Your task to perform on an android device: uninstall "Upside-Cash back on gas & food" Image 0: 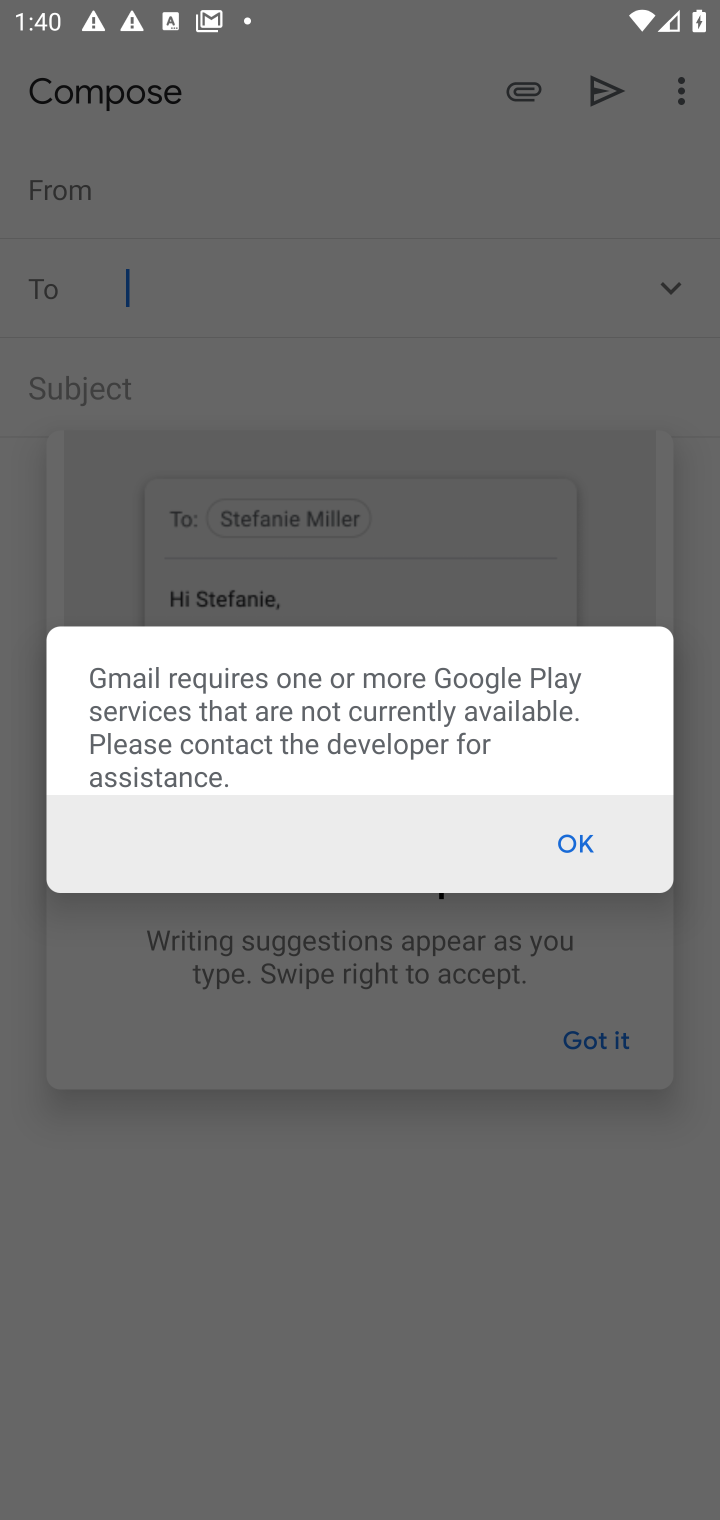
Step 0: press home button
Your task to perform on an android device: uninstall "Upside-Cash back on gas & food" Image 1: 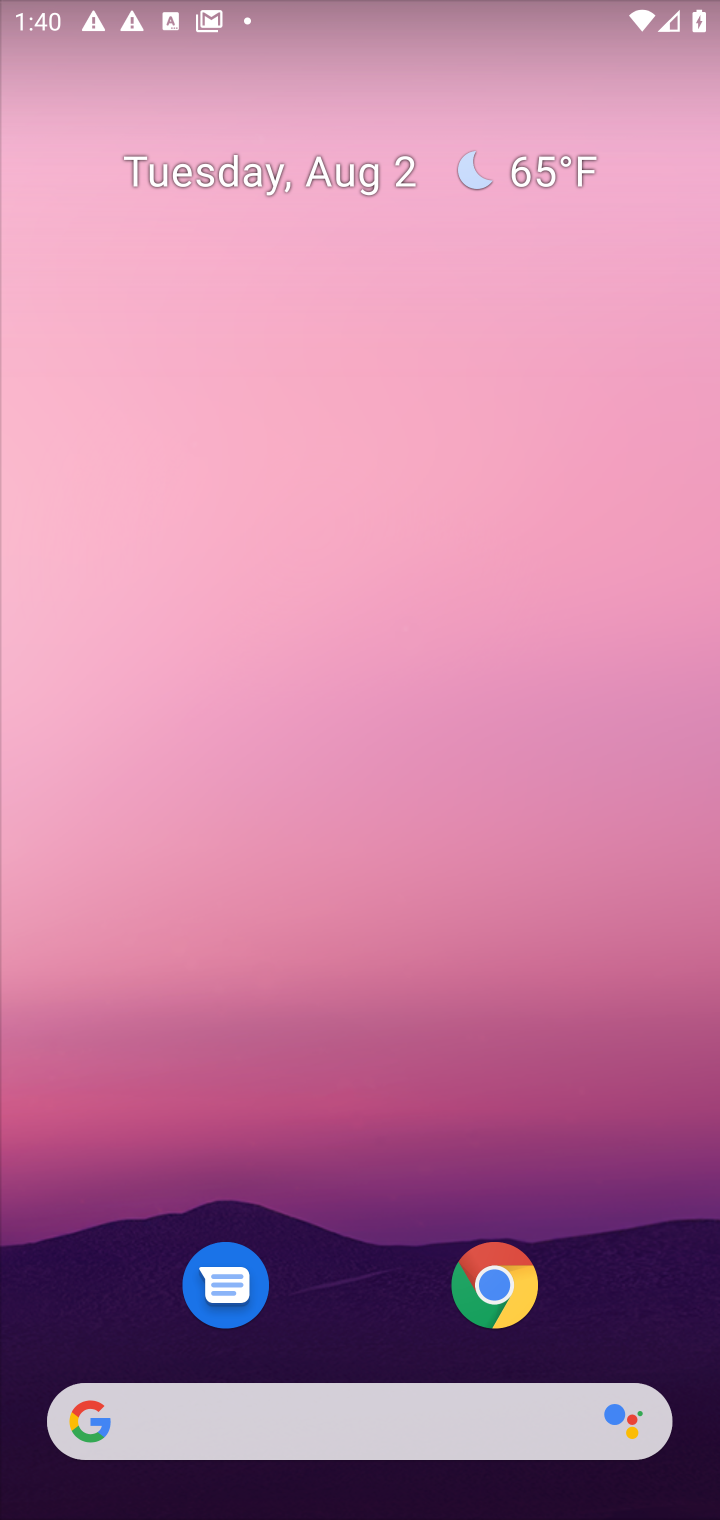
Step 1: drag from (382, 1160) to (377, 350)
Your task to perform on an android device: uninstall "Upside-Cash back on gas & food" Image 2: 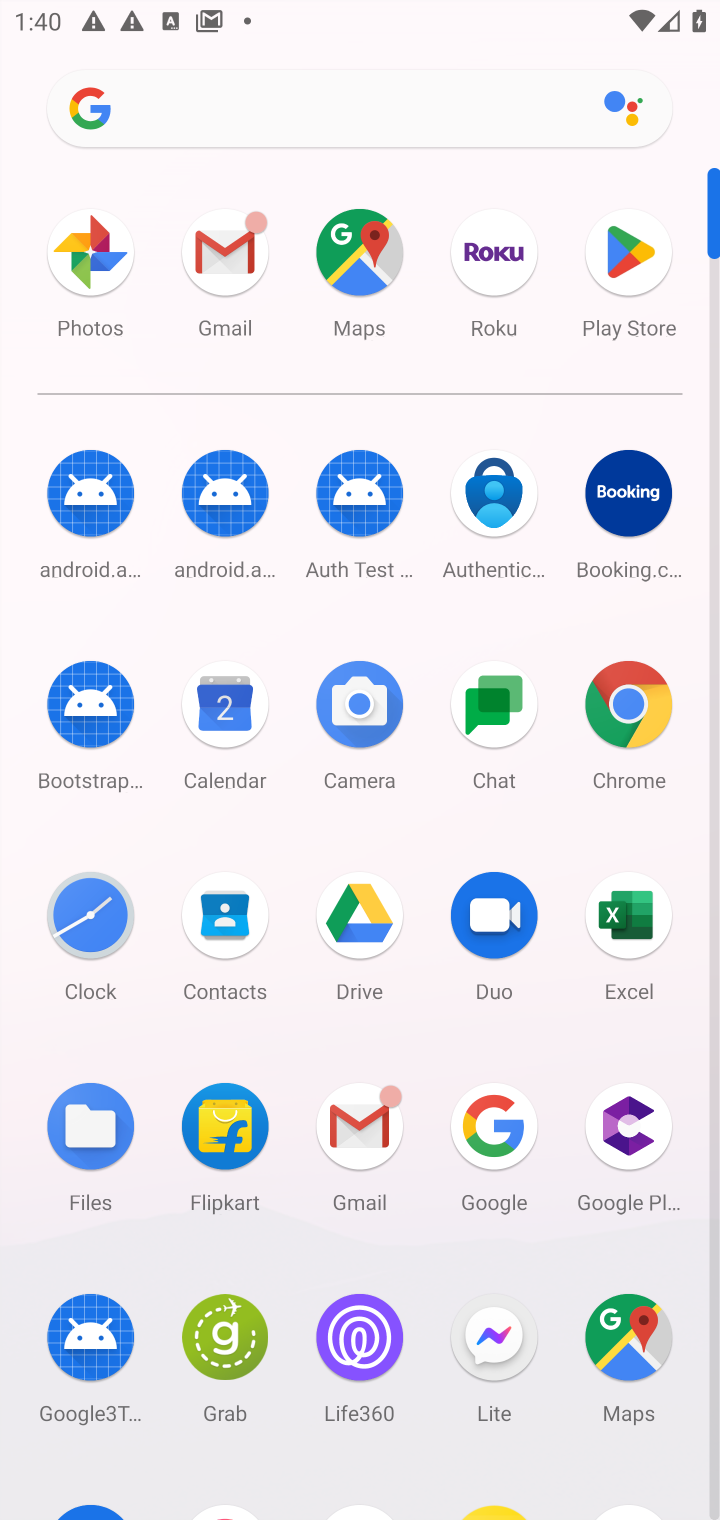
Step 2: drag from (593, 1095) to (642, 601)
Your task to perform on an android device: uninstall "Upside-Cash back on gas & food" Image 3: 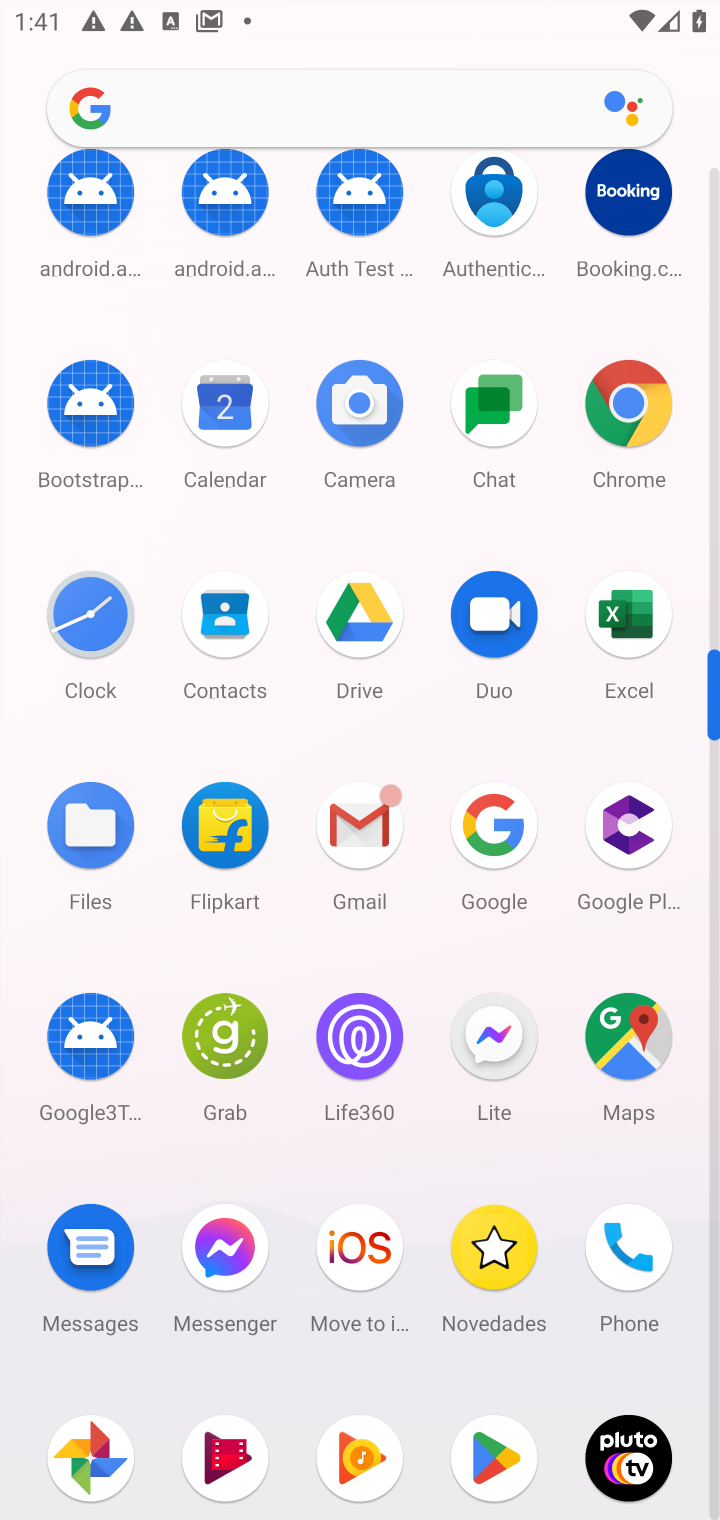
Step 3: click (503, 1438)
Your task to perform on an android device: uninstall "Upside-Cash back on gas & food" Image 4: 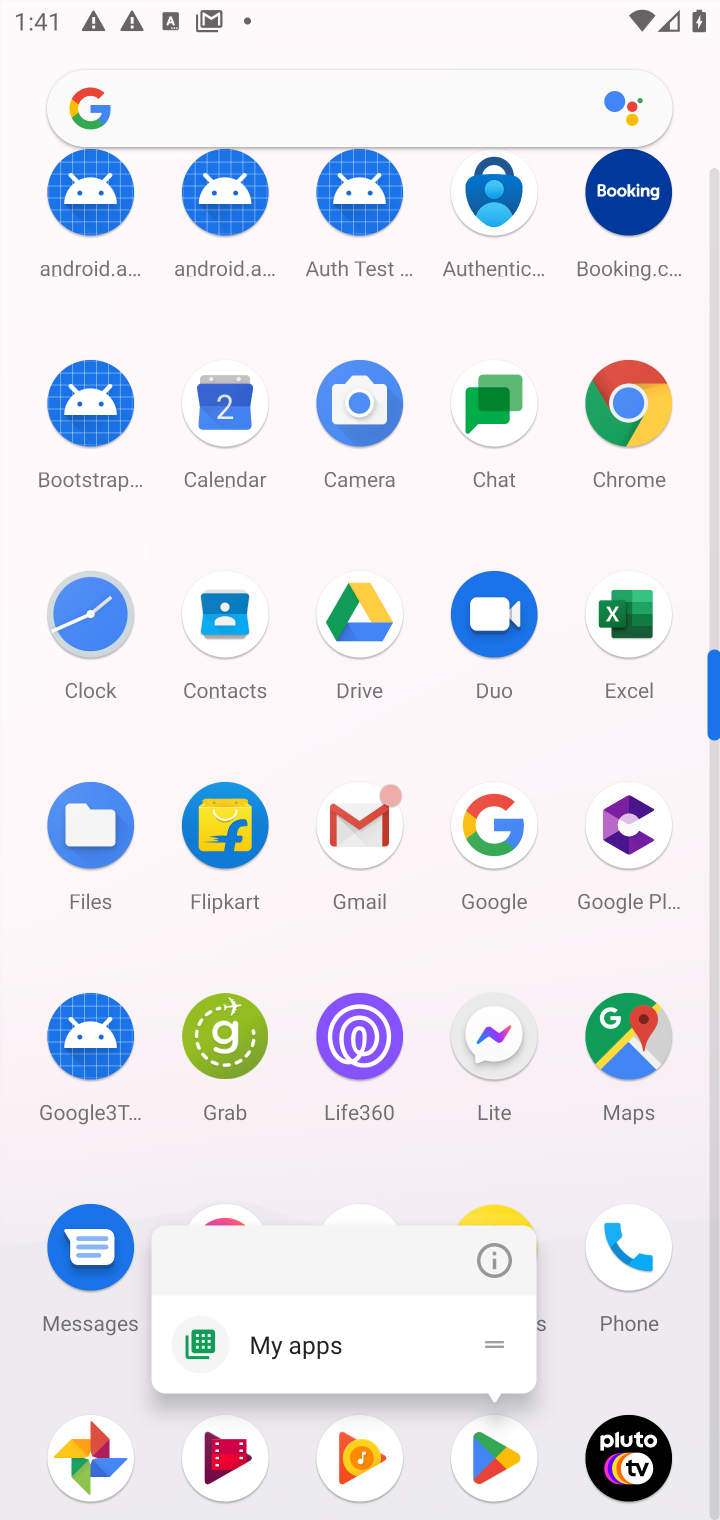
Step 4: click (488, 1449)
Your task to perform on an android device: uninstall "Upside-Cash back on gas & food" Image 5: 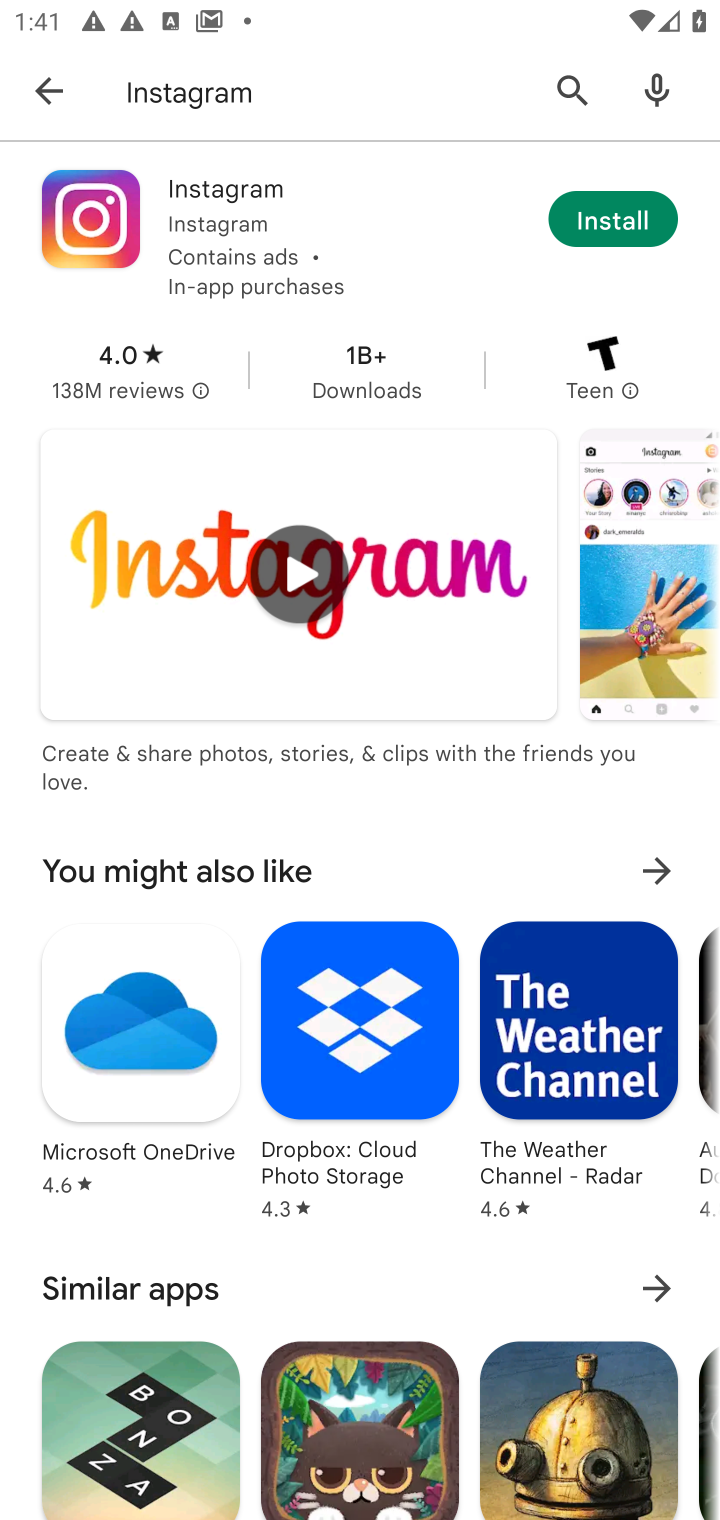
Step 5: click (375, 111)
Your task to perform on an android device: uninstall "Upside-Cash back on gas & food" Image 6: 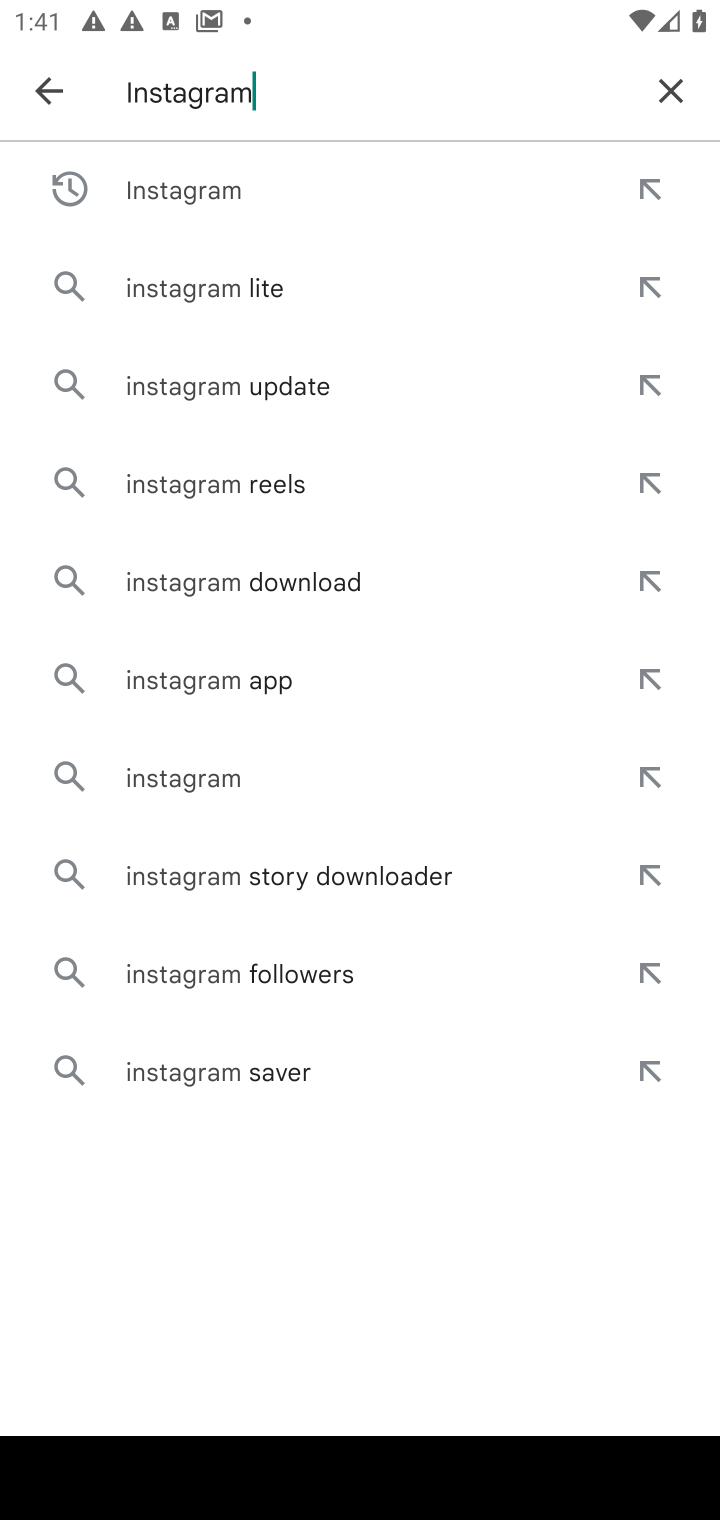
Step 6: click (674, 93)
Your task to perform on an android device: uninstall "Upside-Cash back on gas & food" Image 7: 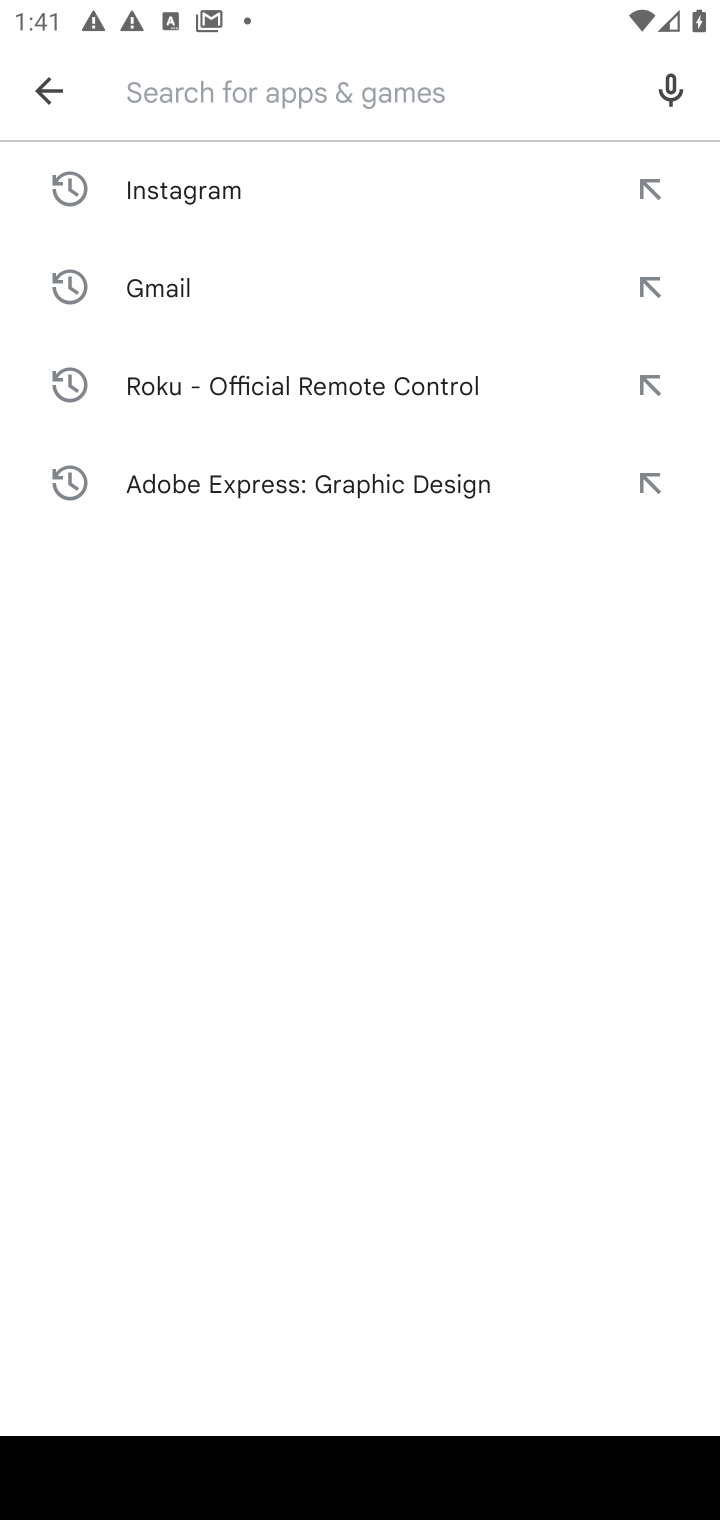
Step 7: type "Upside-Cash back on gas & food"
Your task to perform on an android device: uninstall "Upside-Cash back on gas & food" Image 8: 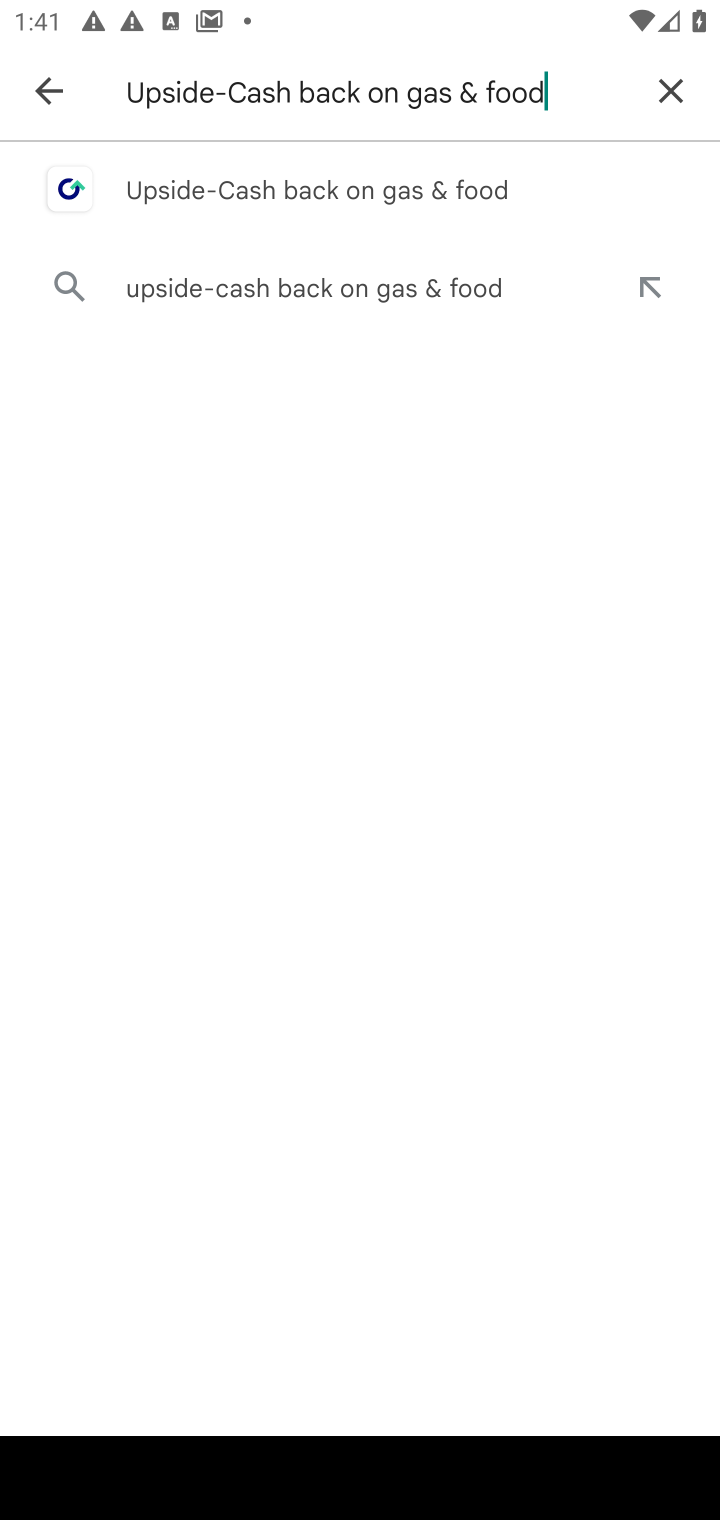
Step 8: press enter
Your task to perform on an android device: uninstall "Upside-Cash back on gas & food" Image 9: 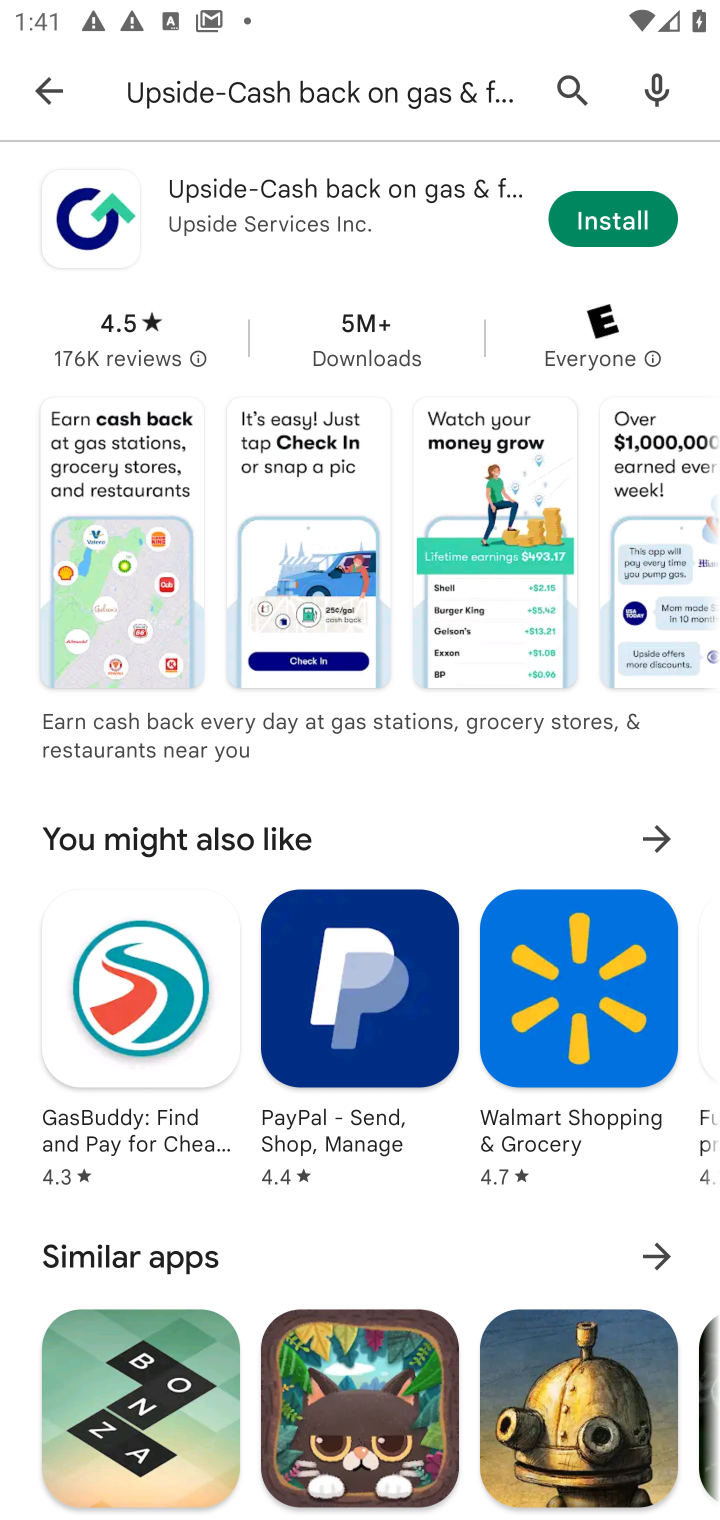
Step 9: task complete